Your task to perform on an android device: Open the map Image 0: 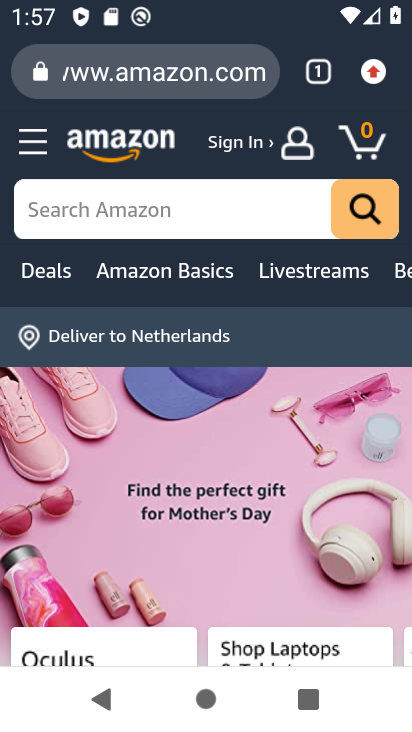
Step 0: press home button
Your task to perform on an android device: Open the map Image 1: 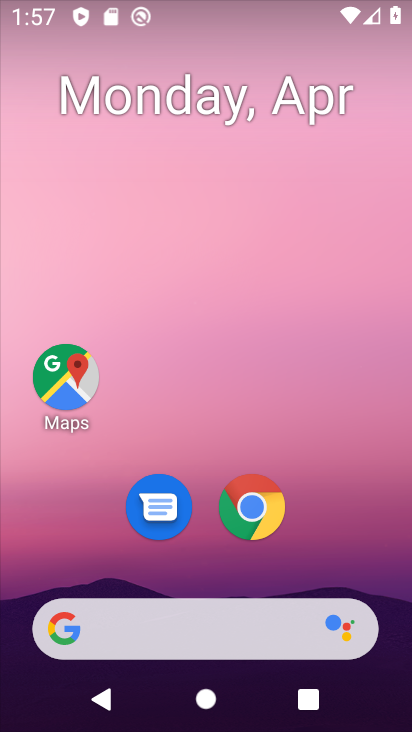
Step 1: click (66, 374)
Your task to perform on an android device: Open the map Image 2: 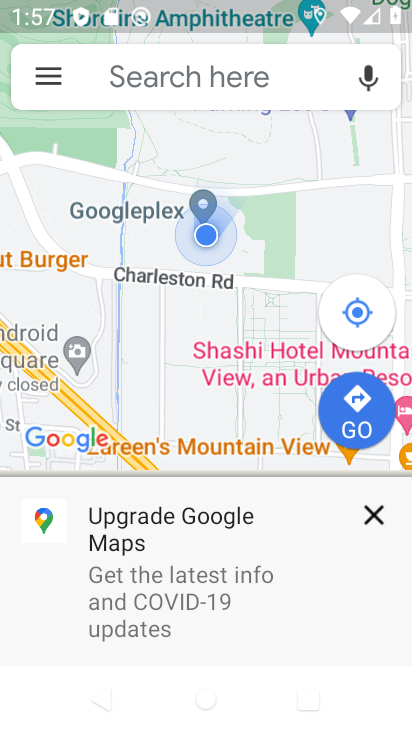
Step 2: task complete